Your task to perform on an android device: Do I have any events this weekend? Image 0: 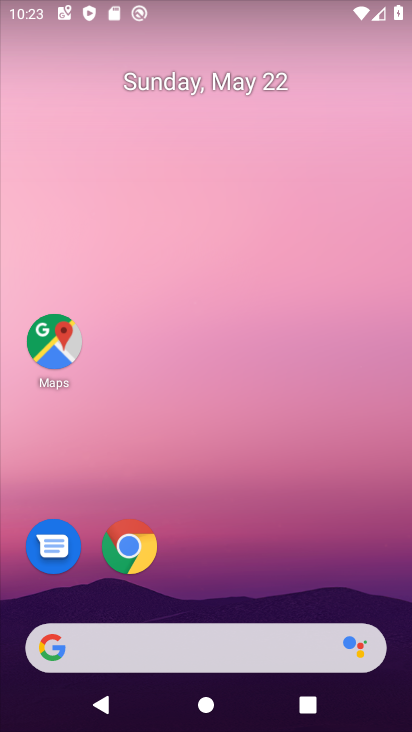
Step 0: drag from (226, 587) to (307, 8)
Your task to perform on an android device: Do I have any events this weekend? Image 1: 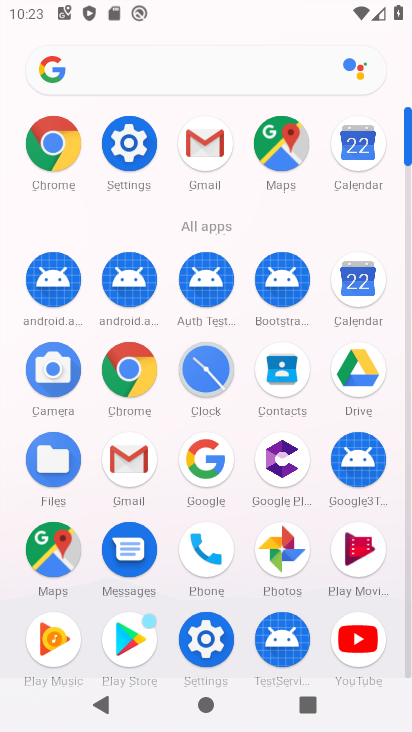
Step 1: click (349, 287)
Your task to perform on an android device: Do I have any events this weekend? Image 2: 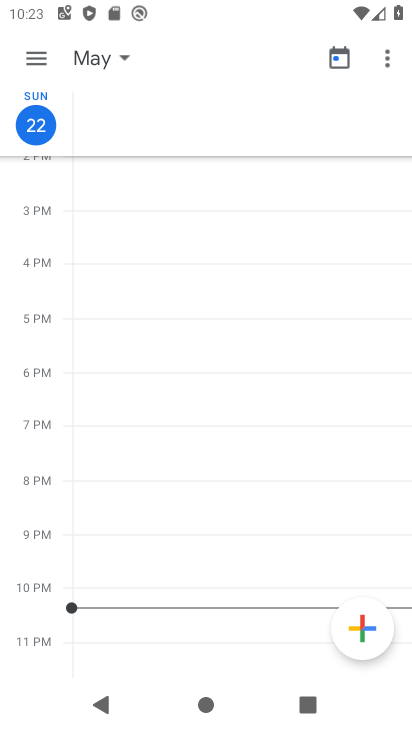
Step 2: click (40, 62)
Your task to perform on an android device: Do I have any events this weekend? Image 3: 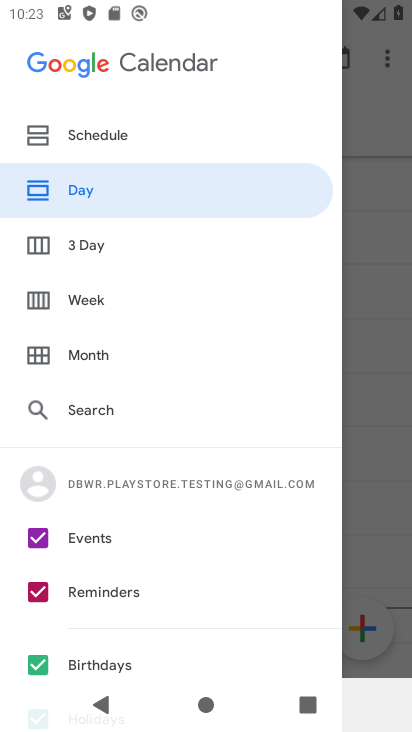
Step 3: drag from (96, 591) to (95, 422)
Your task to perform on an android device: Do I have any events this weekend? Image 4: 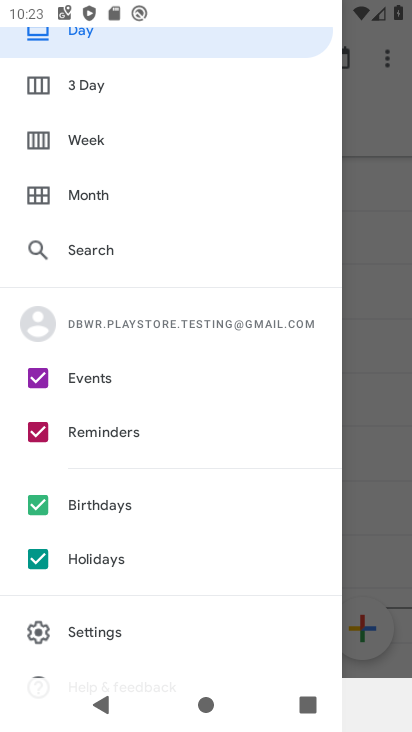
Step 4: click (93, 437)
Your task to perform on an android device: Do I have any events this weekend? Image 5: 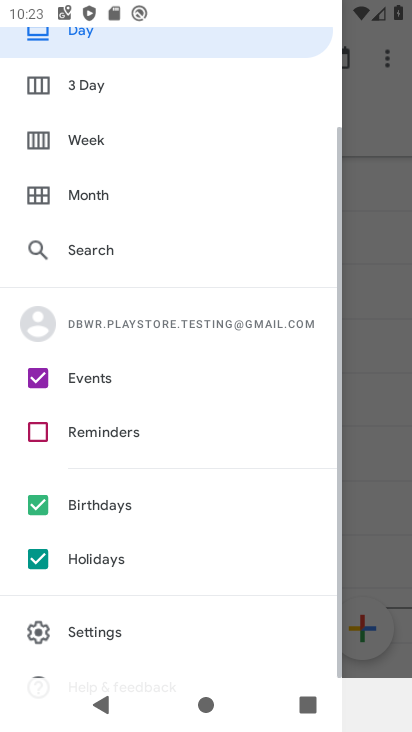
Step 5: click (90, 502)
Your task to perform on an android device: Do I have any events this weekend? Image 6: 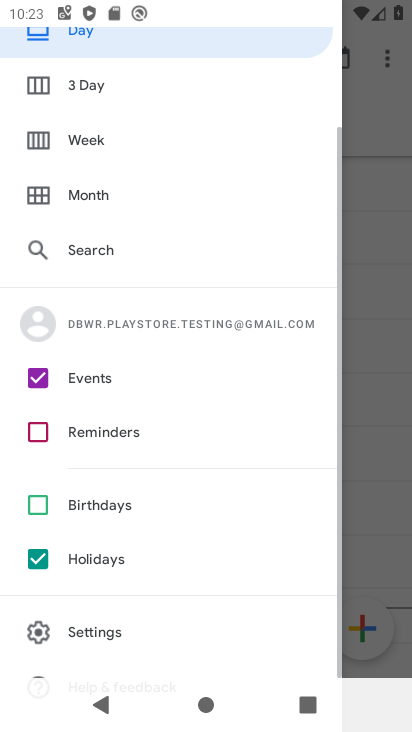
Step 6: click (85, 557)
Your task to perform on an android device: Do I have any events this weekend? Image 7: 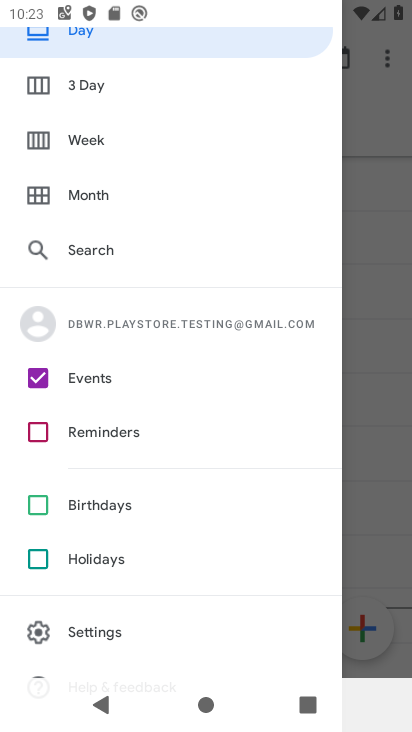
Step 7: click (90, 140)
Your task to perform on an android device: Do I have any events this weekend? Image 8: 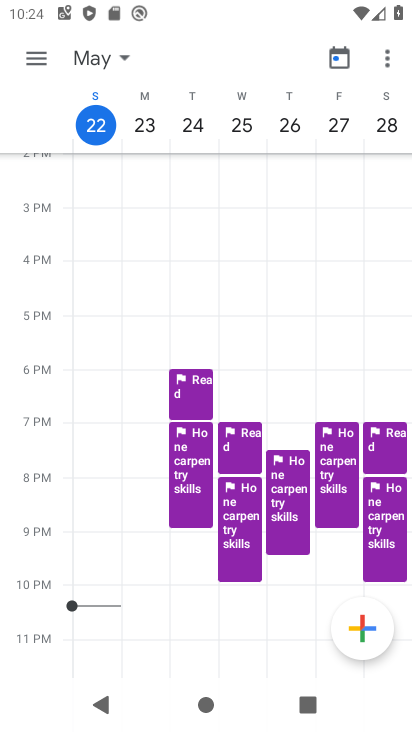
Step 8: task complete